Your task to perform on an android device: allow notifications from all sites in the chrome app Image 0: 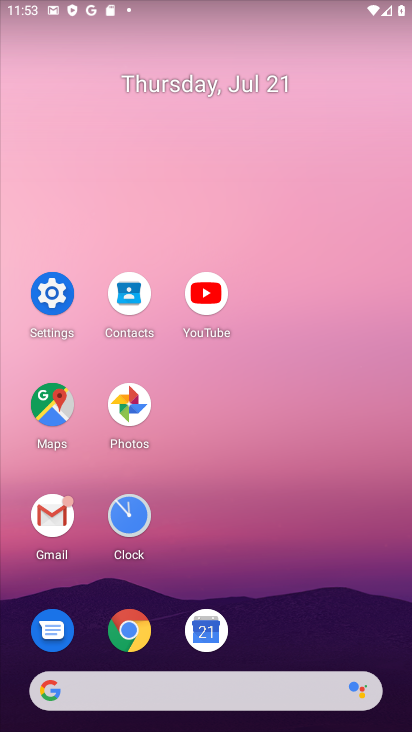
Step 0: click (129, 629)
Your task to perform on an android device: allow notifications from all sites in the chrome app Image 1: 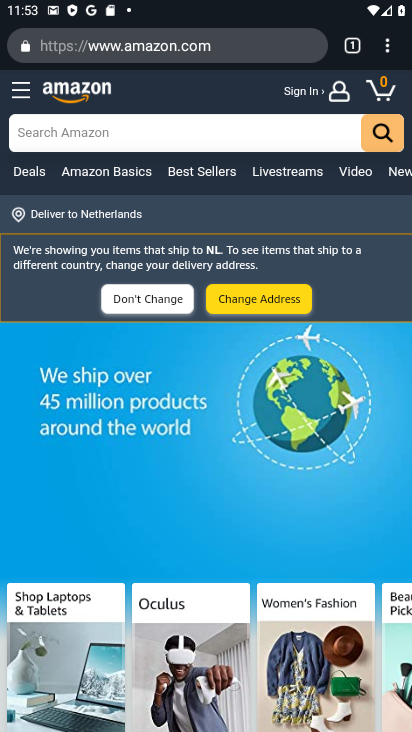
Step 1: click (386, 47)
Your task to perform on an android device: allow notifications from all sites in the chrome app Image 2: 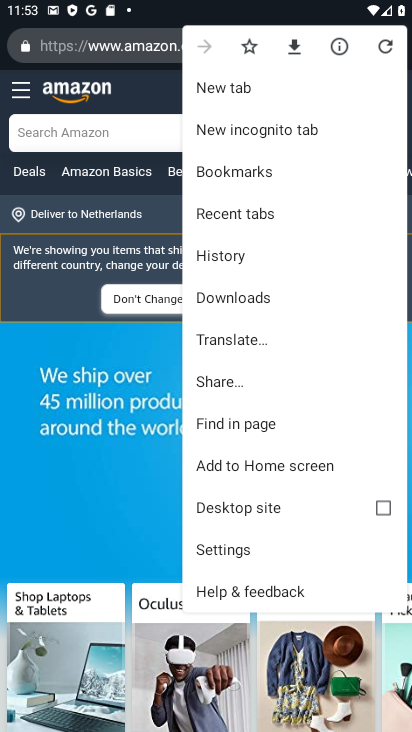
Step 2: click (219, 544)
Your task to perform on an android device: allow notifications from all sites in the chrome app Image 3: 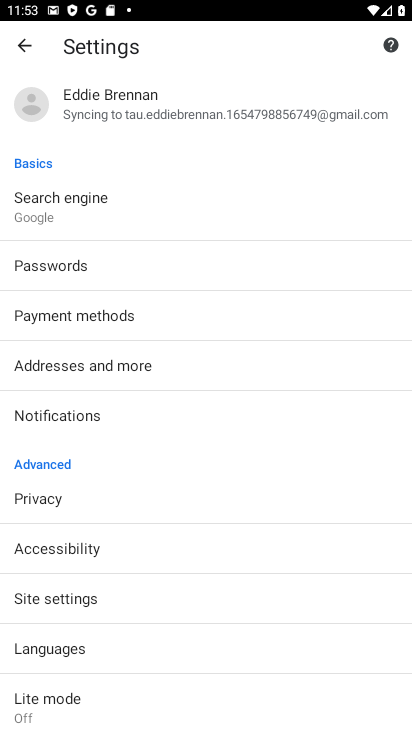
Step 3: click (54, 596)
Your task to perform on an android device: allow notifications from all sites in the chrome app Image 4: 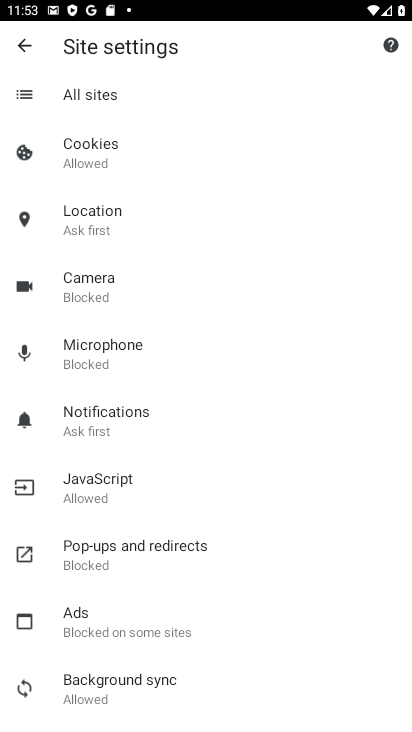
Step 4: click (118, 416)
Your task to perform on an android device: allow notifications from all sites in the chrome app Image 5: 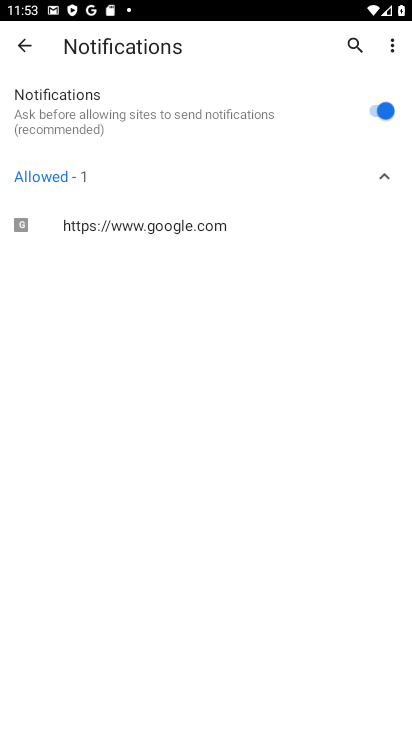
Step 5: task complete